Your task to perform on an android device: Go to internet settings Image 0: 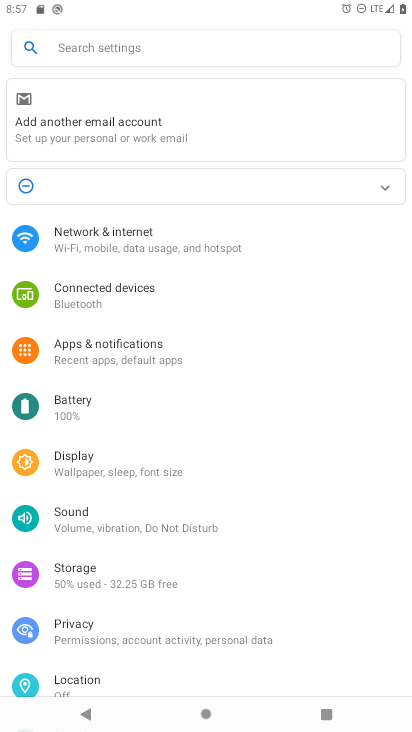
Step 0: click (105, 235)
Your task to perform on an android device: Go to internet settings Image 1: 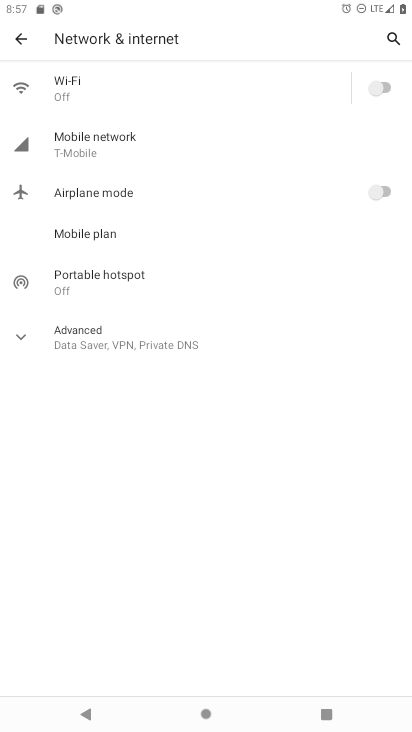
Step 1: task complete